Your task to perform on an android device: Add razer blackwidow to the cart on costco.com, then select checkout. Image 0: 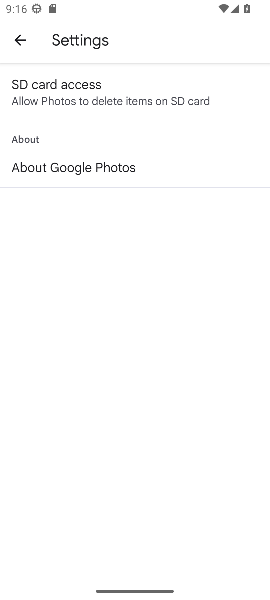
Step 0: press home button
Your task to perform on an android device: Add razer blackwidow to the cart on costco.com, then select checkout. Image 1: 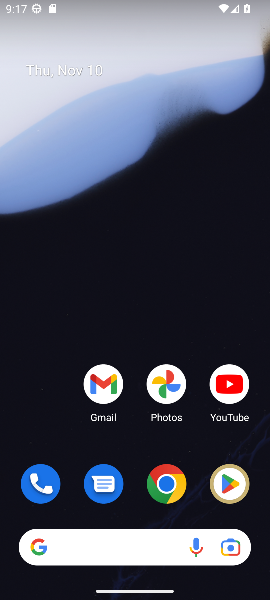
Step 1: click (169, 487)
Your task to perform on an android device: Add razer blackwidow to the cart on costco.com, then select checkout. Image 2: 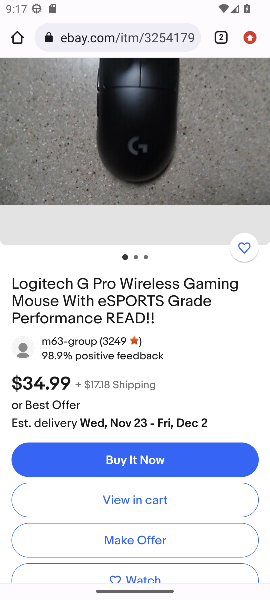
Step 2: click (132, 41)
Your task to perform on an android device: Add razer blackwidow to the cart on costco.com, then select checkout. Image 3: 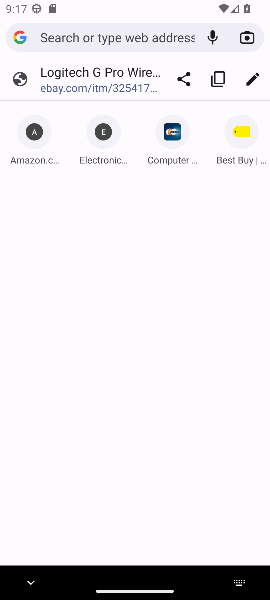
Step 3: type "costco.com"
Your task to perform on an android device: Add razer blackwidow to the cart on costco.com, then select checkout. Image 4: 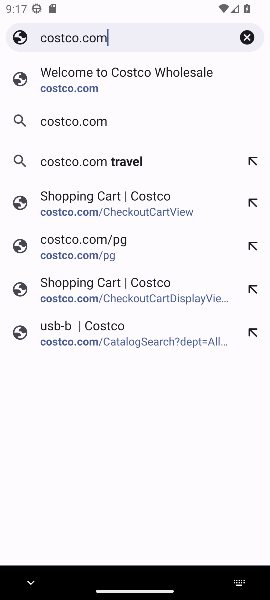
Step 4: click (48, 88)
Your task to perform on an android device: Add razer blackwidow to the cart on costco.com, then select checkout. Image 5: 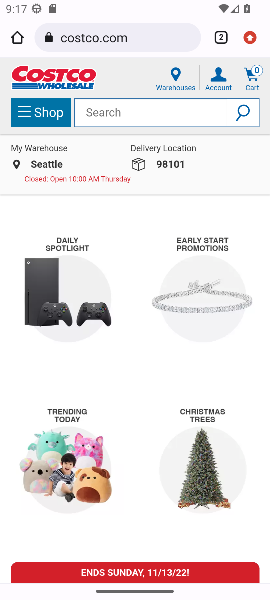
Step 5: click (94, 120)
Your task to perform on an android device: Add razer blackwidow to the cart on costco.com, then select checkout. Image 6: 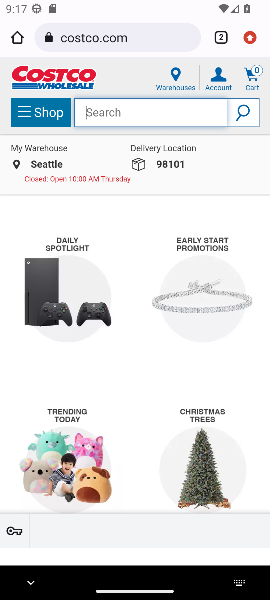
Step 6: type "razer blackwidow"
Your task to perform on an android device: Add razer blackwidow to the cart on costco.com, then select checkout. Image 7: 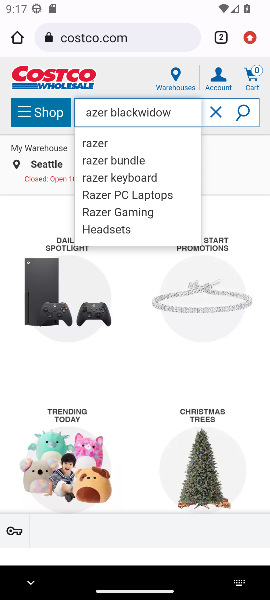
Step 7: click (236, 113)
Your task to perform on an android device: Add razer blackwidow to the cart on costco.com, then select checkout. Image 8: 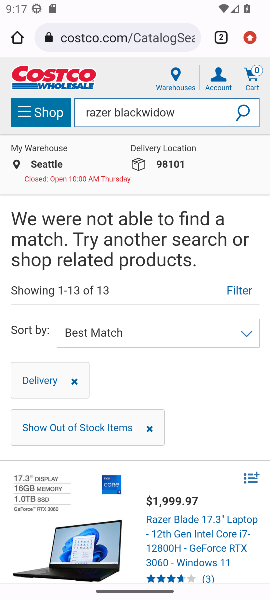
Step 8: task complete